Your task to perform on an android device: Open maps Image 0: 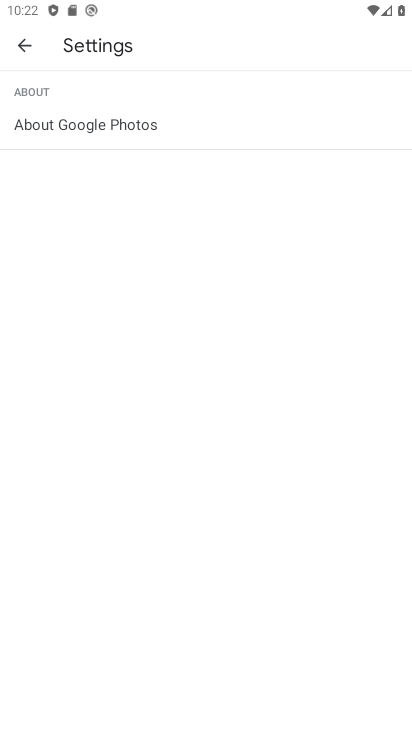
Step 0: press back button
Your task to perform on an android device: Open maps Image 1: 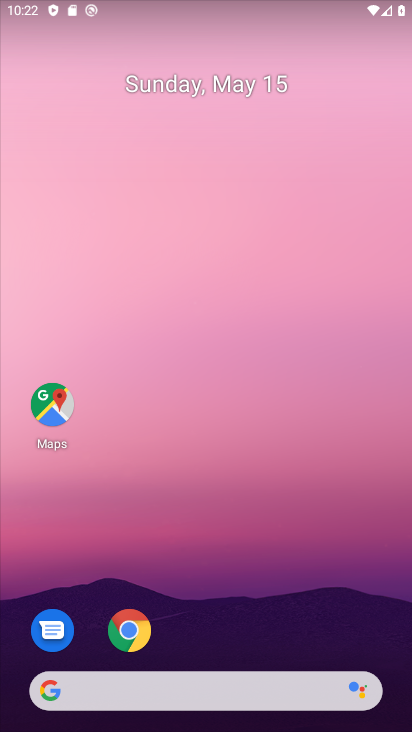
Step 1: click (45, 397)
Your task to perform on an android device: Open maps Image 2: 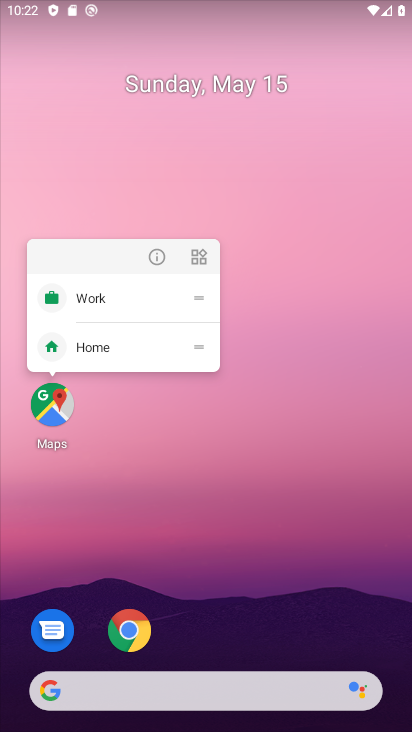
Step 2: click (58, 406)
Your task to perform on an android device: Open maps Image 3: 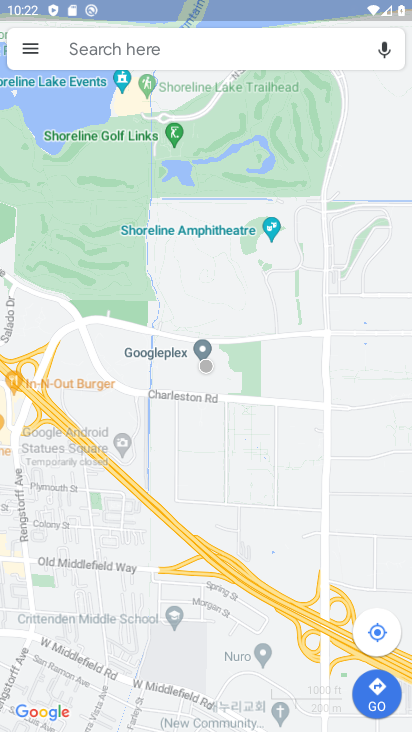
Step 3: task complete